Your task to perform on an android device: Go to internet settings Image 0: 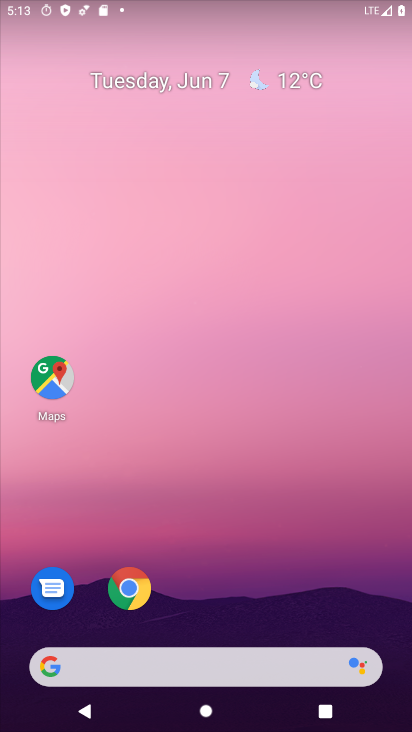
Step 0: drag from (194, 614) to (213, 2)
Your task to perform on an android device: Go to internet settings Image 1: 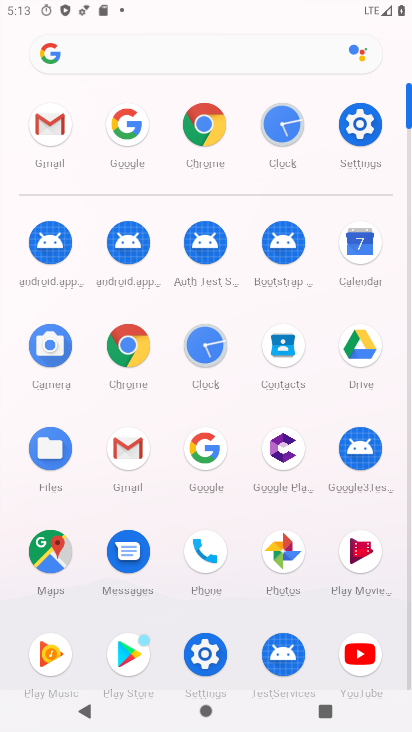
Step 1: click (354, 128)
Your task to perform on an android device: Go to internet settings Image 2: 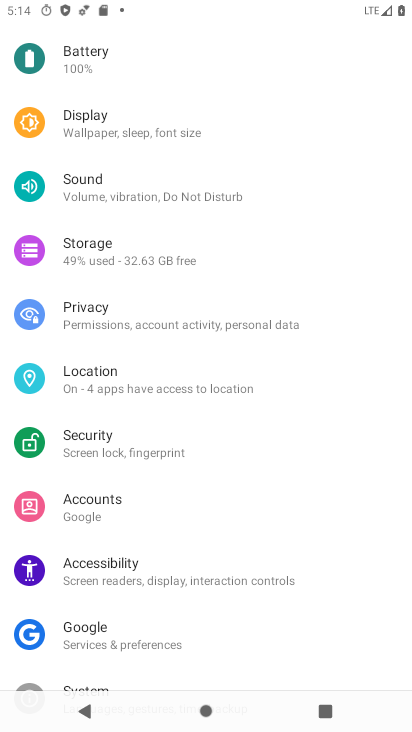
Step 2: drag from (153, 138) to (44, 604)
Your task to perform on an android device: Go to internet settings Image 3: 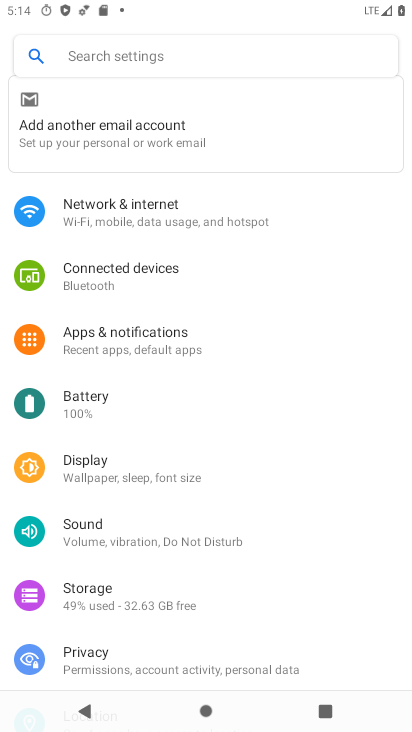
Step 3: drag from (138, 211) to (76, 554)
Your task to perform on an android device: Go to internet settings Image 4: 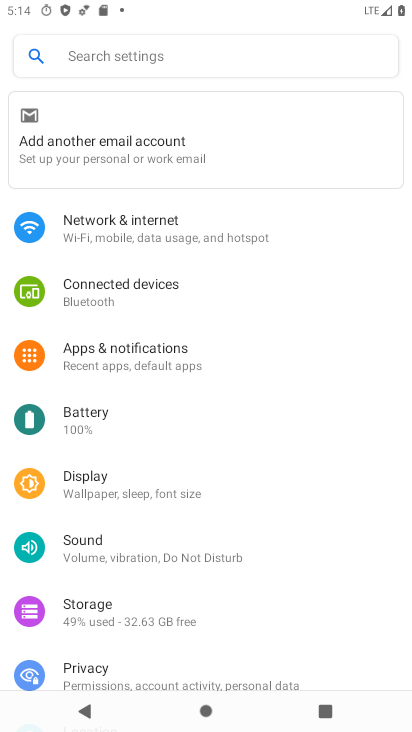
Step 4: click (108, 227)
Your task to perform on an android device: Go to internet settings Image 5: 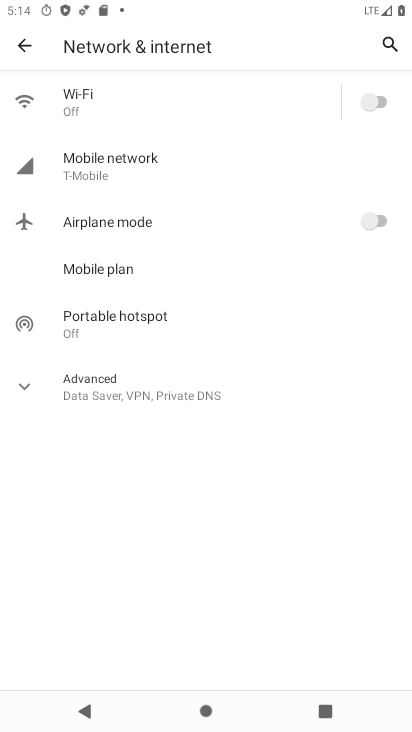
Step 5: task complete